Your task to perform on an android device: Search for razer thresher on costco, select the first entry, and add it to the cart. Image 0: 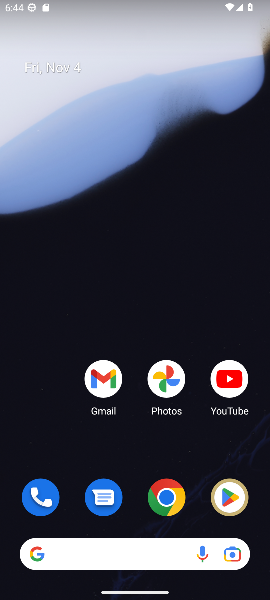
Step 0: click (166, 497)
Your task to perform on an android device: Search for razer thresher on costco, select the first entry, and add it to the cart. Image 1: 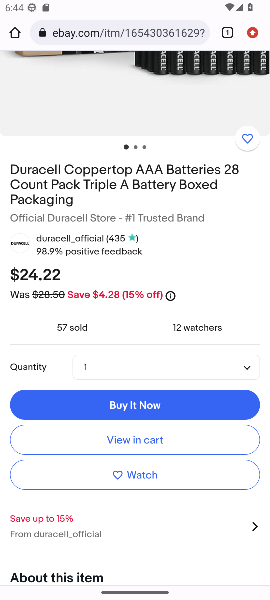
Step 1: click (125, 33)
Your task to perform on an android device: Search for razer thresher on costco, select the first entry, and add it to the cart. Image 2: 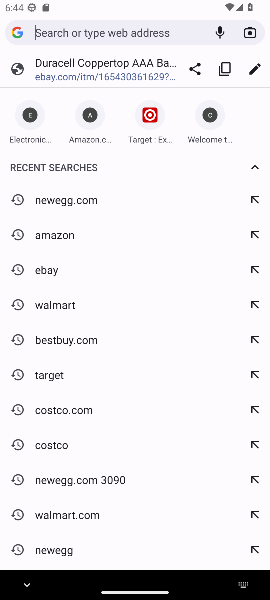
Step 2: click (63, 414)
Your task to perform on an android device: Search for razer thresher on costco, select the first entry, and add it to the cart. Image 3: 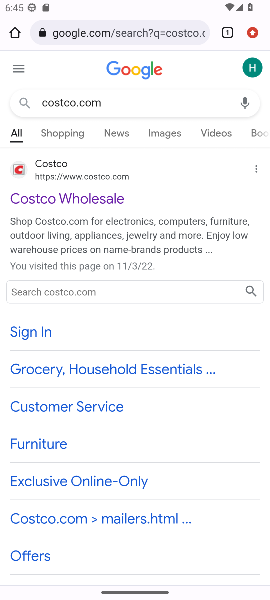
Step 3: click (76, 197)
Your task to perform on an android device: Search for razer thresher on costco, select the first entry, and add it to the cart. Image 4: 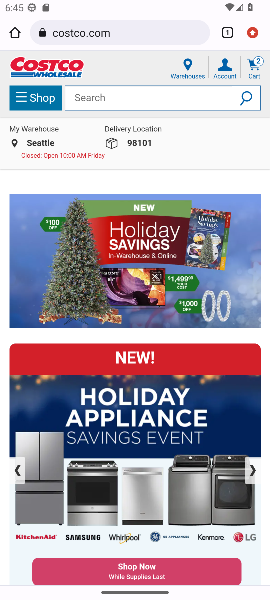
Step 4: click (105, 97)
Your task to perform on an android device: Search for razer thresher on costco, select the first entry, and add it to the cart. Image 5: 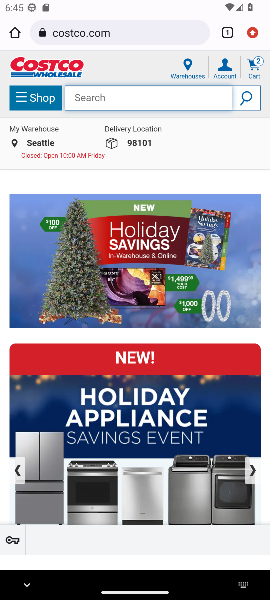
Step 5: type "razer thresher"
Your task to perform on an android device: Search for razer thresher on costco, select the first entry, and add it to the cart. Image 6: 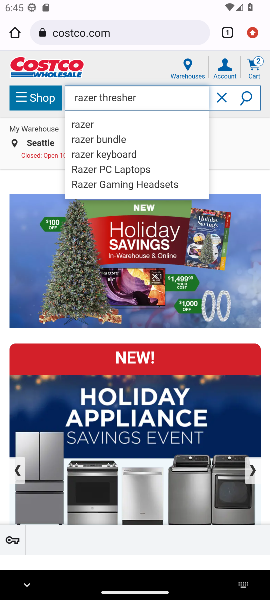
Step 6: click (251, 99)
Your task to perform on an android device: Search for razer thresher on costco, select the first entry, and add it to the cart. Image 7: 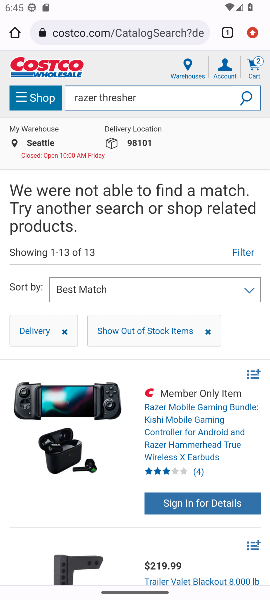
Step 7: task complete